Your task to perform on an android device: Check the weather Image 0: 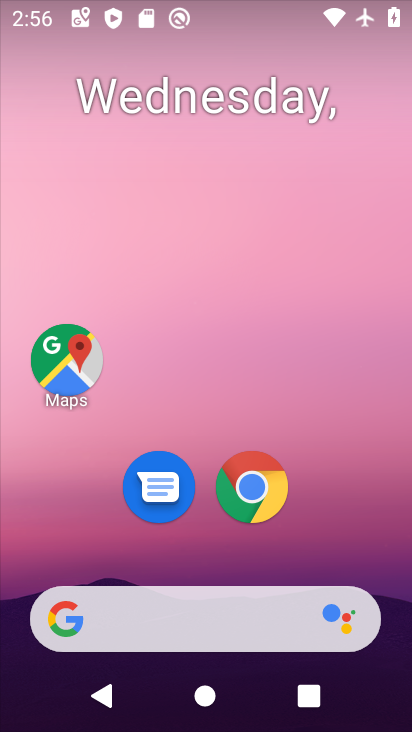
Step 0: click (66, 623)
Your task to perform on an android device: Check the weather Image 1: 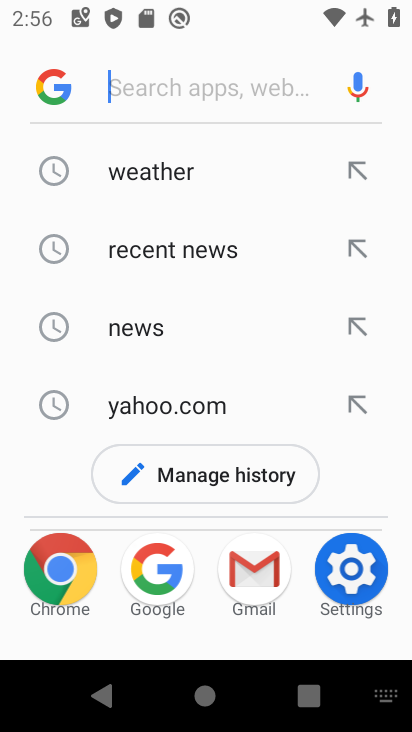
Step 1: click (64, 90)
Your task to perform on an android device: Check the weather Image 2: 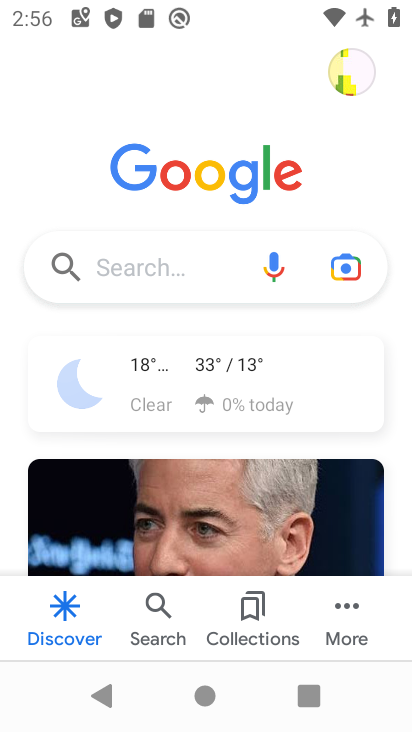
Step 2: click (255, 382)
Your task to perform on an android device: Check the weather Image 3: 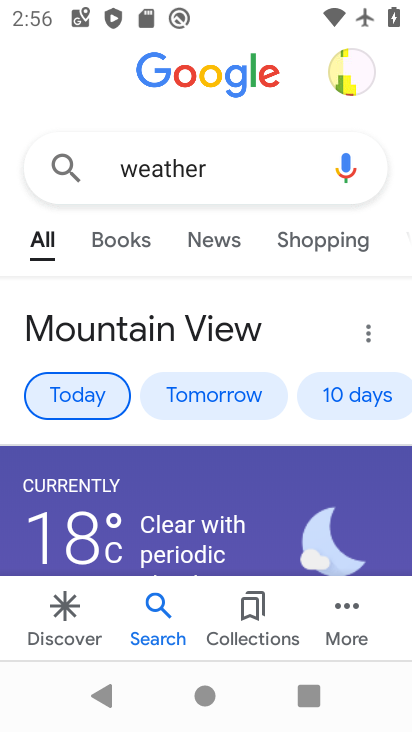
Step 3: task complete